Your task to perform on an android device: Check the weather Image 0: 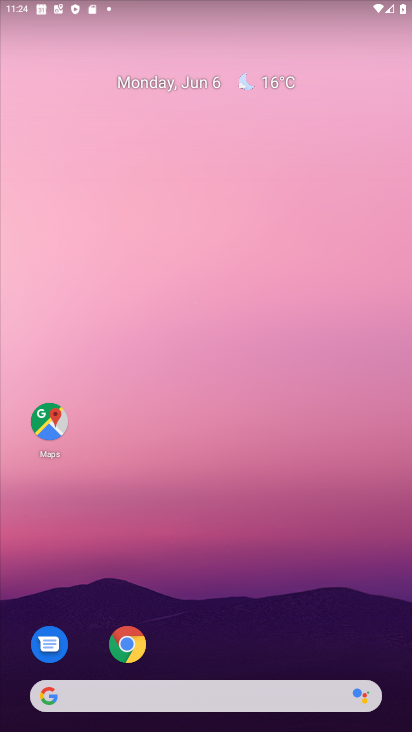
Step 0: drag from (268, 555) to (219, 12)
Your task to perform on an android device: Check the weather Image 1: 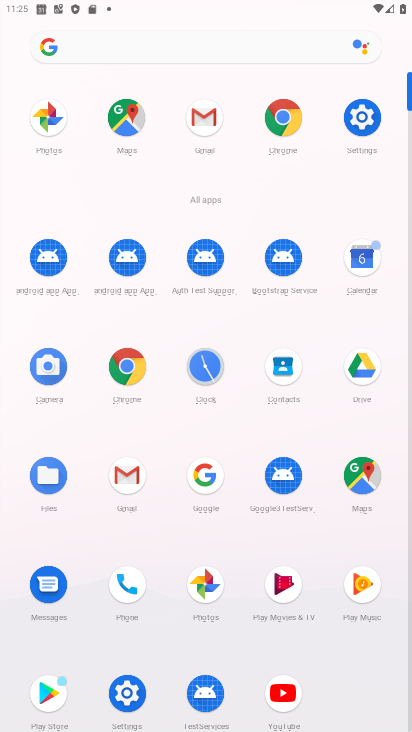
Step 1: click (127, 364)
Your task to perform on an android device: Check the weather Image 2: 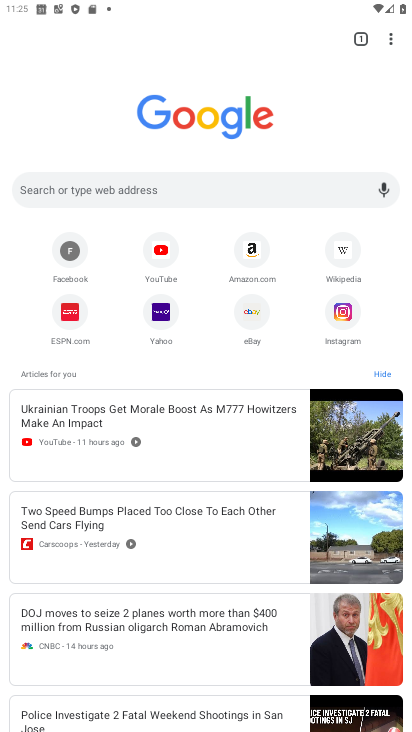
Step 2: click (130, 193)
Your task to perform on an android device: Check the weather Image 3: 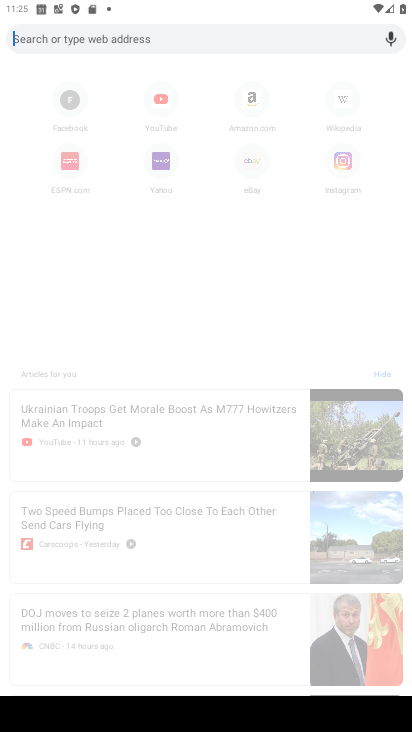
Step 3: type "Check the weather"
Your task to perform on an android device: Check the weather Image 4: 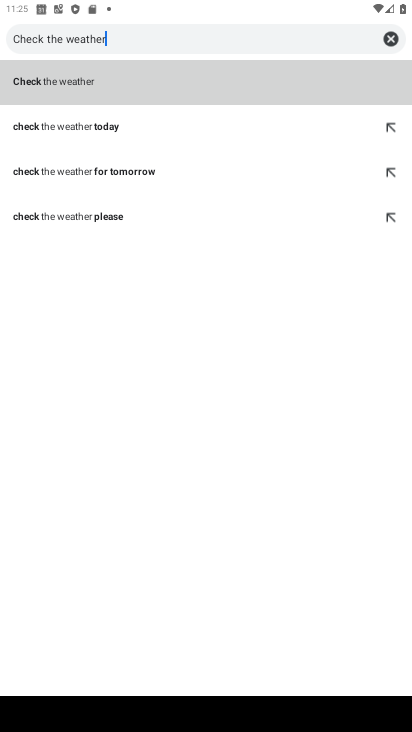
Step 4: type ""
Your task to perform on an android device: Check the weather Image 5: 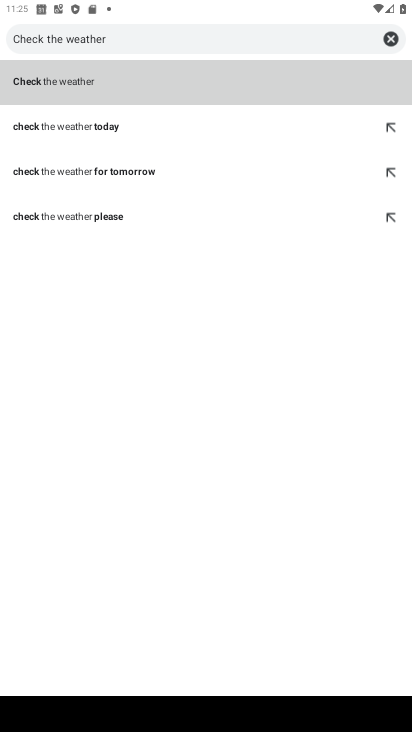
Step 5: click (143, 78)
Your task to perform on an android device: Check the weather Image 6: 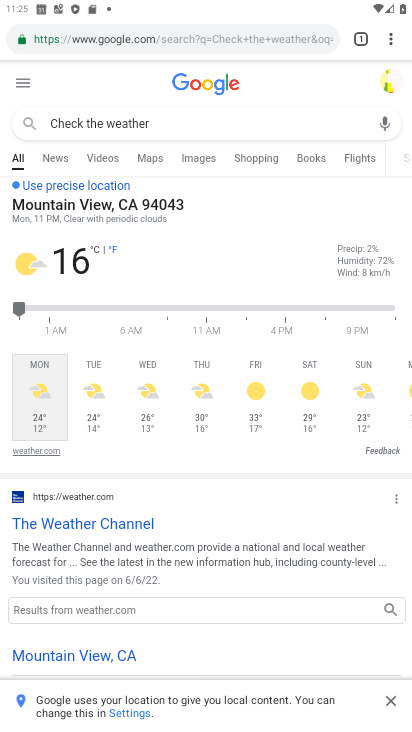
Step 6: task complete